Your task to perform on an android device: Go to Maps Image 0: 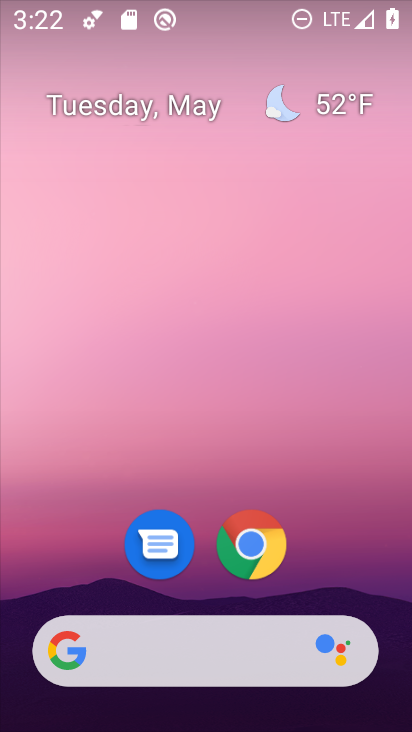
Step 0: drag from (357, 505) to (358, 243)
Your task to perform on an android device: Go to Maps Image 1: 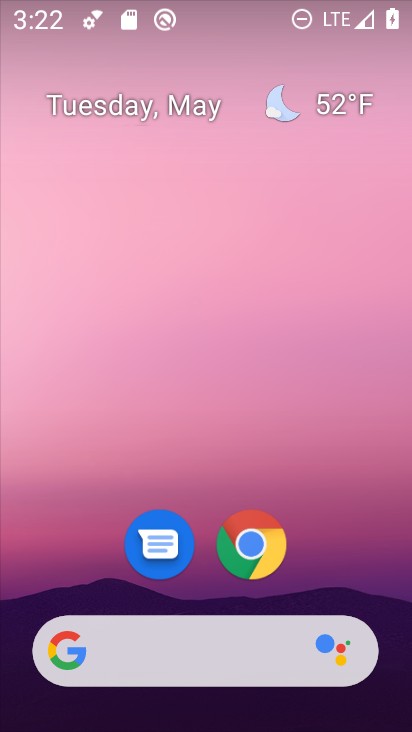
Step 1: drag from (367, 556) to (346, 205)
Your task to perform on an android device: Go to Maps Image 2: 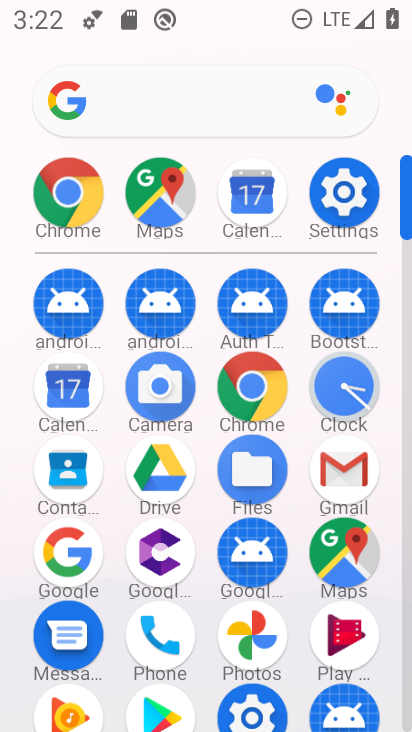
Step 2: click (345, 554)
Your task to perform on an android device: Go to Maps Image 3: 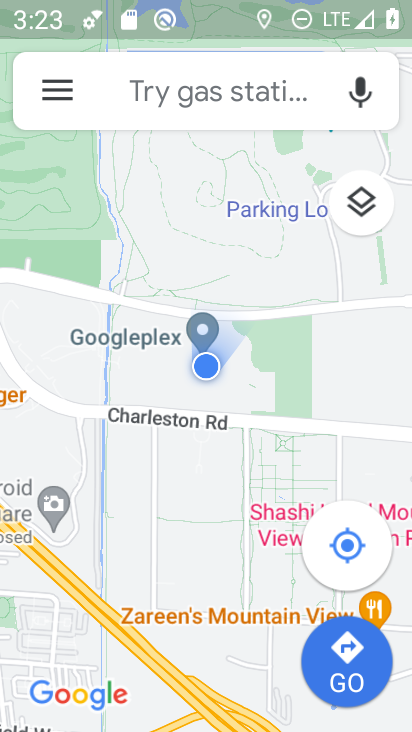
Step 3: task complete